Your task to perform on an android device: change notification settings in the gmail app Image 0: 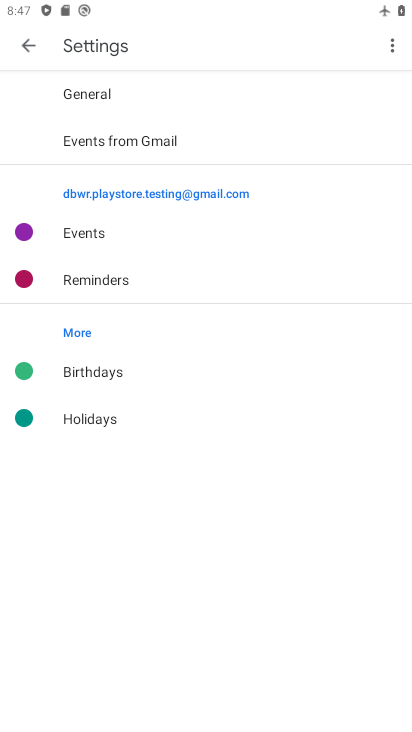
Step 0: press home button
Your task to perform on an android device: change notification settings in the gmail app Image 1: 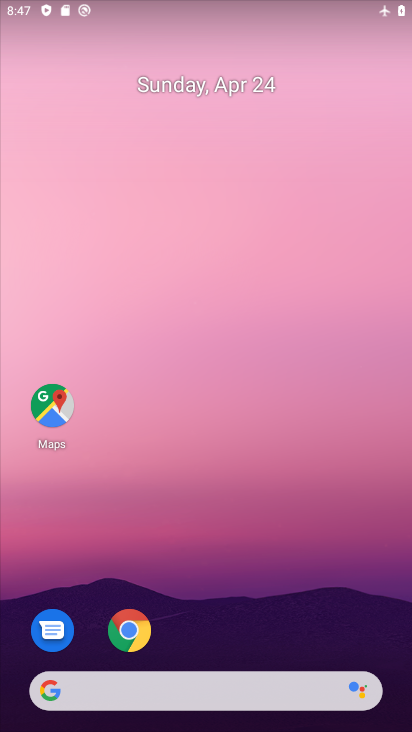
Step 1: drag from (218, 410) to (263, 237)
Your task to perform on an android device: change notification settings in the gmail app Image 2: 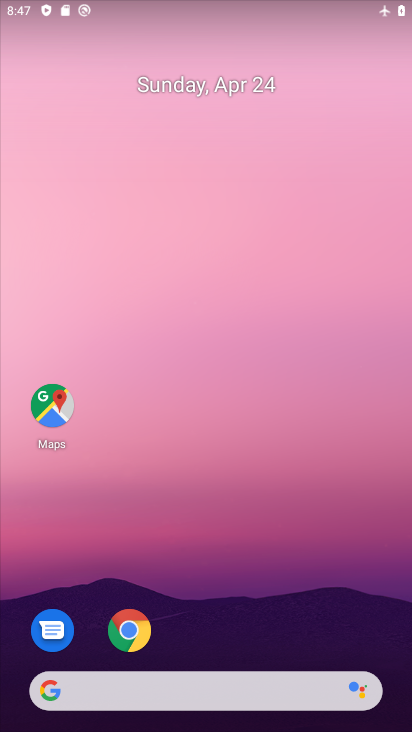
Step 2: drag from (185, 654) to (280, 128)
Your task to perform on an android device: change notification settings in the gmail app Image 3: 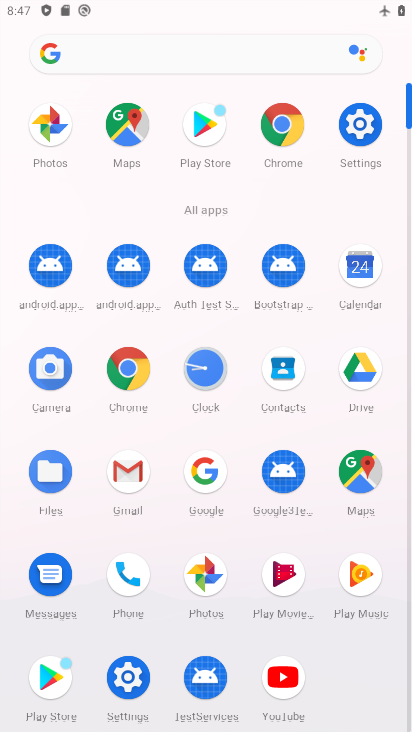
Step 3: click (120, 484)
Your task to perform on an android device: change notification settings in the gmail app Image 4: 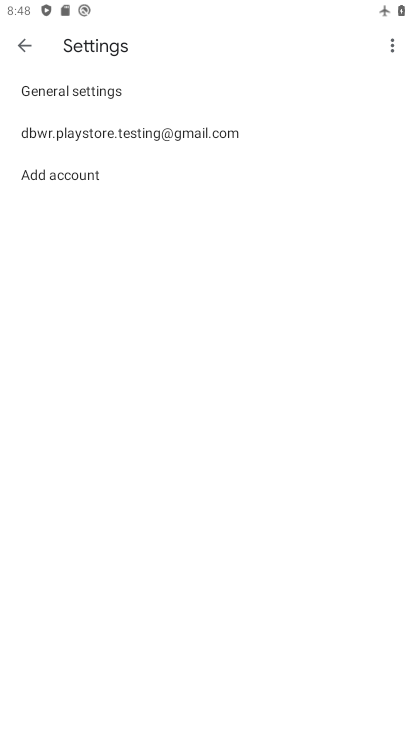
Step 4: click (144, 136)
Your task to perform on an android device: change notification settings in the gmail app Image 5: 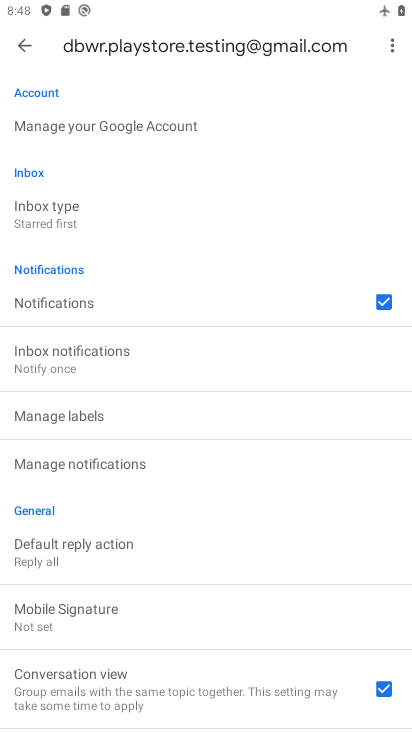
Step 5: click (119, 467)
Your task to perform on an android device: change notification settings in the gmail app Image 6: 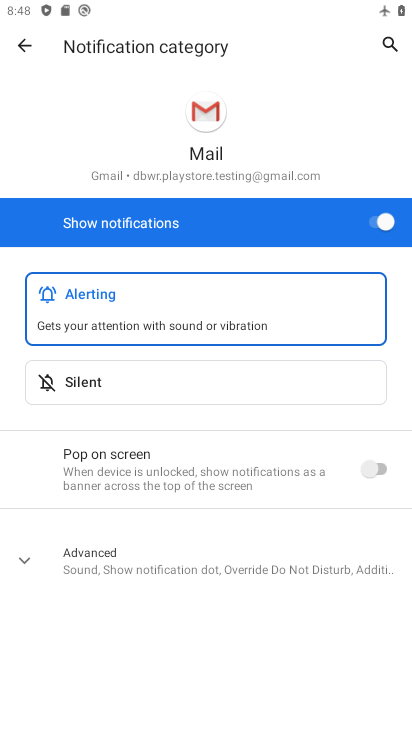
Step 6: click (368, 221)
Your task to perform on an android device: change notification settings in the gmail app Image 7: 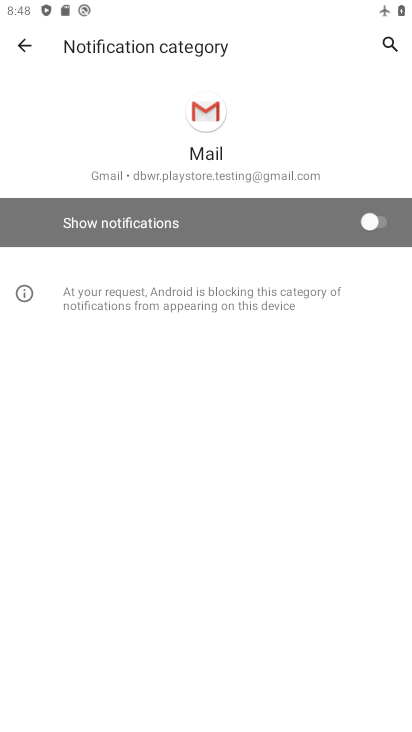
Step 7: task complete